Your task to perform on an android device: Show me the alarms in the clock app Image 0: 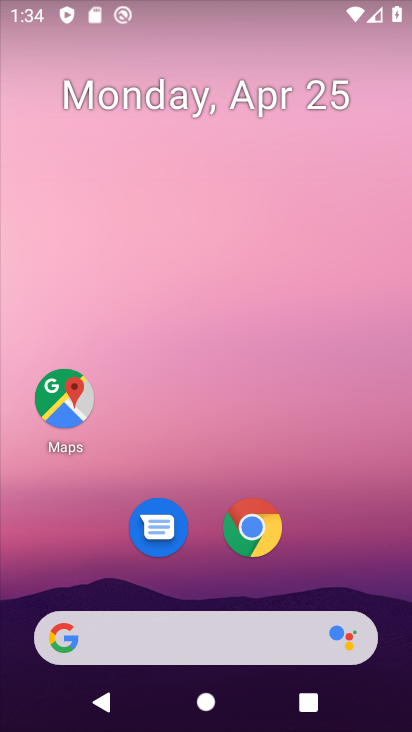
Step 0: drag from (357, 484) to (291, 82)
Your task to perform on an android device: Show me the alarms in the clock app Image 1: 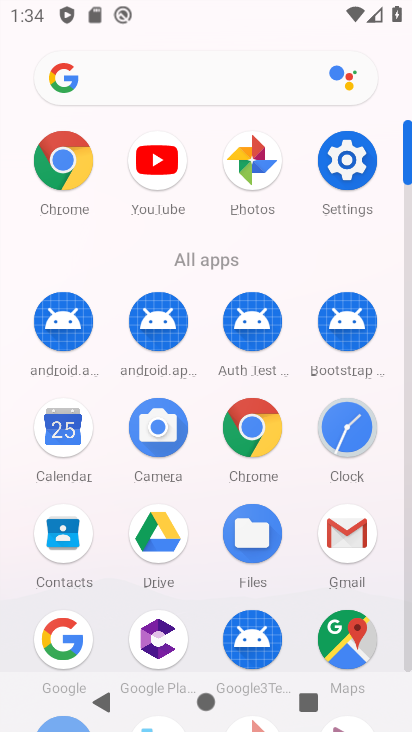
Step 1: click (345, 427)
Your task to perform on an android device: Show me the alarms in the clock app Image 2: 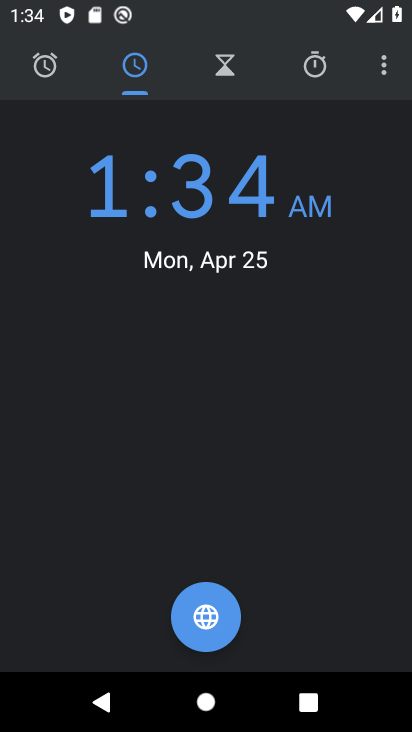
Step 2: click (43, 77)
Your task to perform on an android device: Show me the alarms in the clock app Image 3: 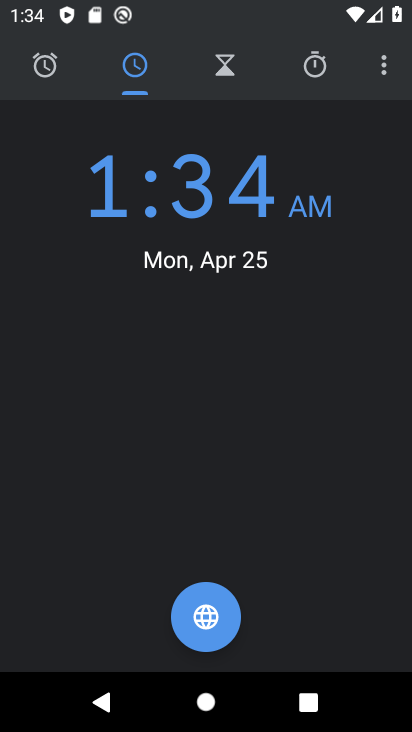
Step 3: click (53, 68)
Your task to perform on an android device: Show me the alarms in the clock app Image 4: 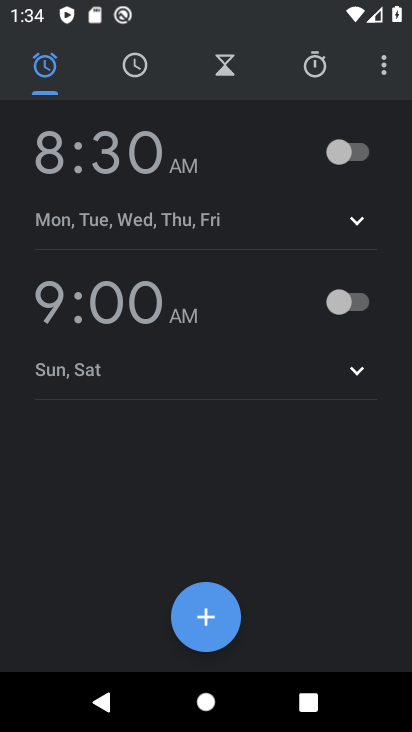
Step 4: task complete